Your task to perform on an android device: Show me recent news Image 0: 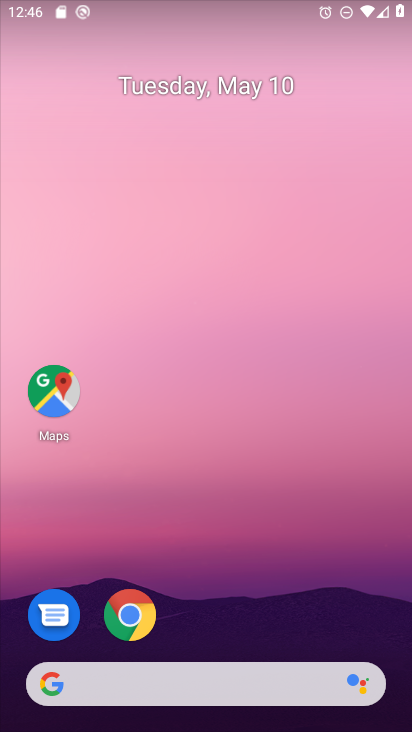
Step 0: drag from (290, 699) to (358, 134)
Your task to perform on an android device: Show me recent news Image 1: 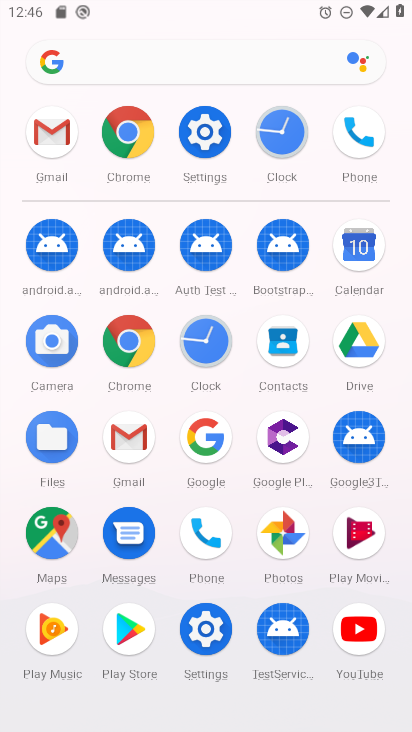
Step 1: click (150, 46)
Your task to perform on an android device: Show me recent news Image 2: 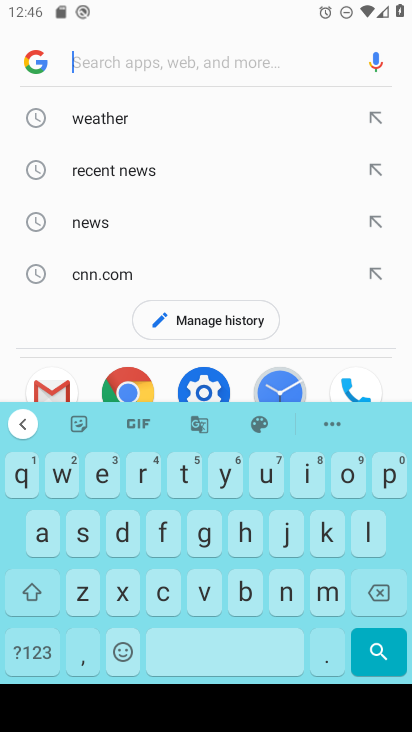
Step 2: click (118, 167)
Your task to perform on an android device: Show me recent news Image 3: 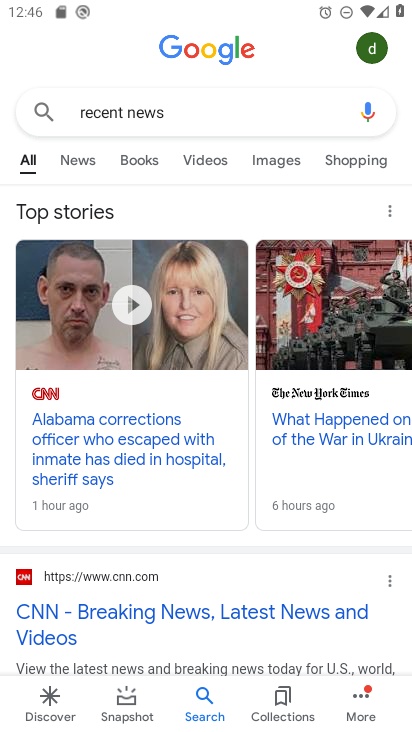
Step 3: task complete